Your task to perform on an android device: turn smart compose on in the gmail app Image 0: 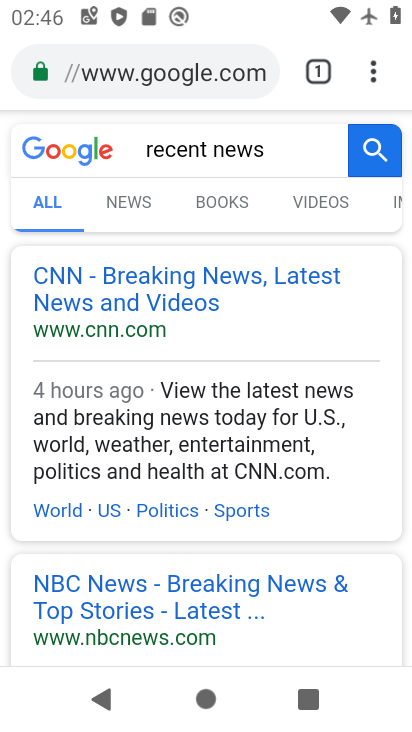
Step 0: press home button
Your task to perform on an android device: turn smart compose on in the gmail app Image 1: 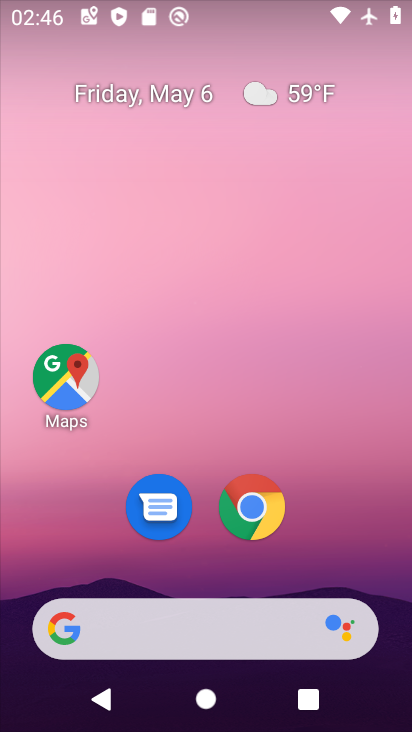
Step 1: drag from (354, 553) to (331, 155)
Your task to perform on an android device: turn smart compose on in the gmail app Image 2: 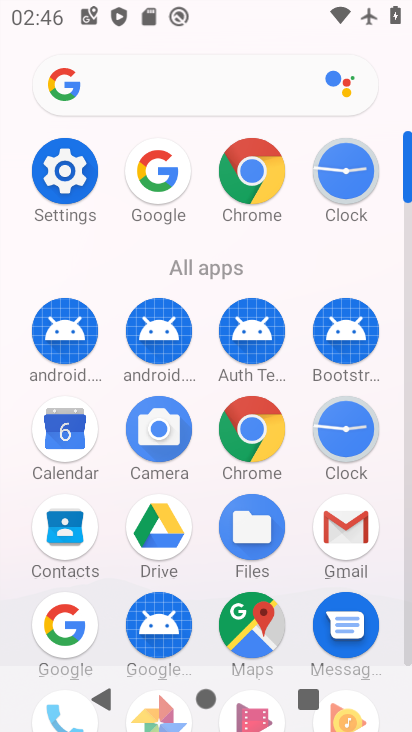
Step 2: drag from (296, 617) to (305, 409)
Your task to perform on an android device: turn smart compose on in the gmail app Image 3: 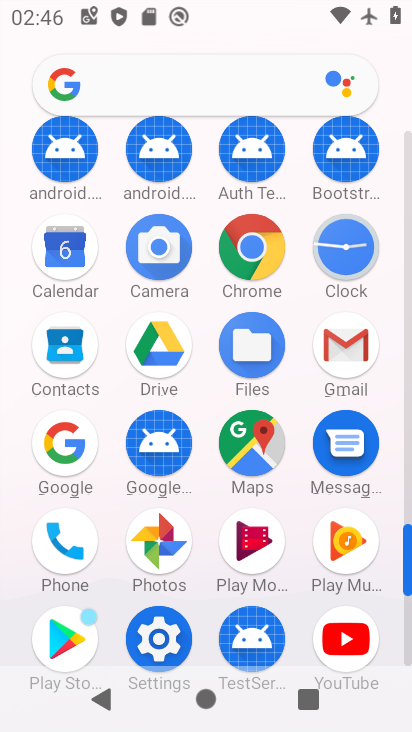
Step 3: click (357, 357)
Your task to perform on an android device: turn smart compose on in the gmail app Image 4: 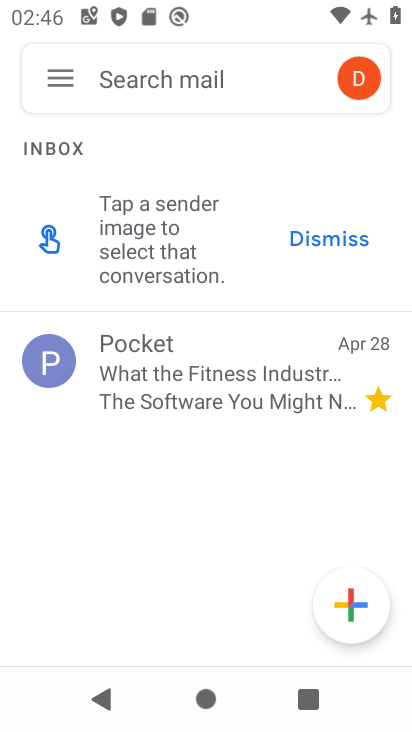
Step 4: click (60, 80)
Your task to perform on an android device: turn smart compose on in the gmail app Image 5: 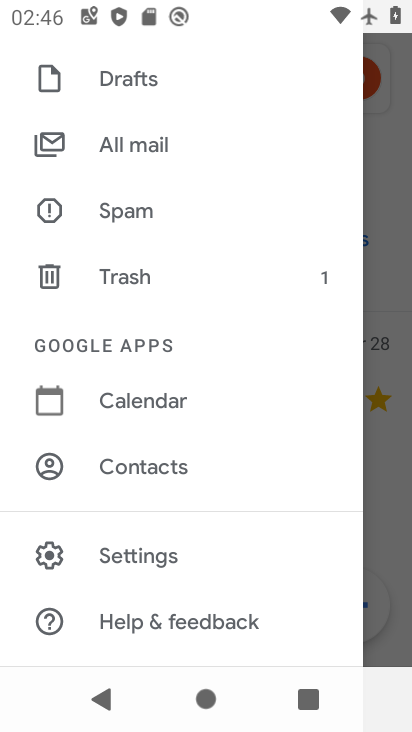
Step 5: click (129, 563)
Your task to perform on an android device: turn smart compose on in the gmail app Image 6: 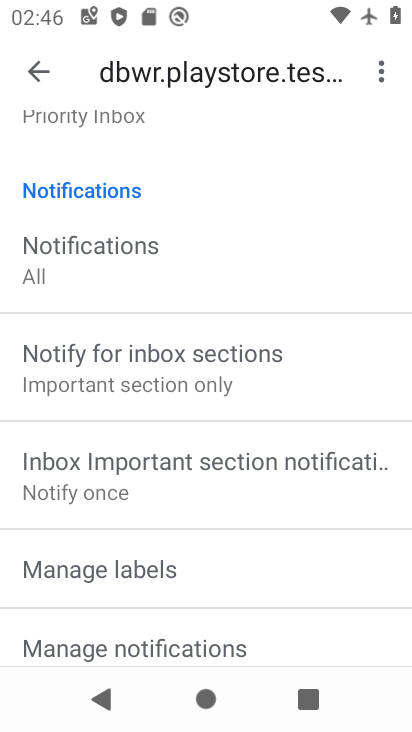
Step 6: task complete